Your task to perform on an android device: Open my contact list Image 0: 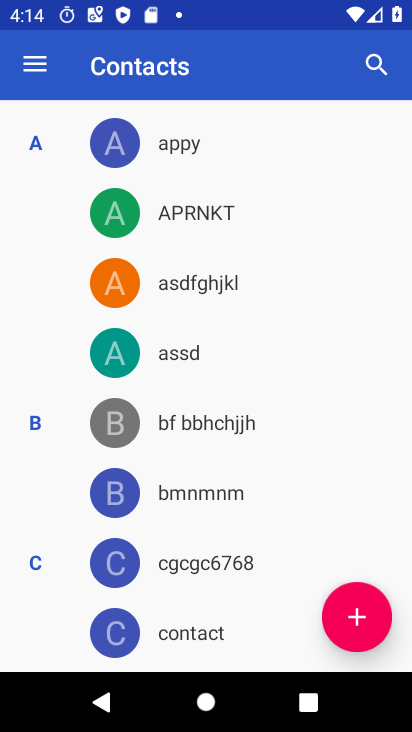
Step 0: press home button
Your task to perform on an android device: Open my contact list Image 1: 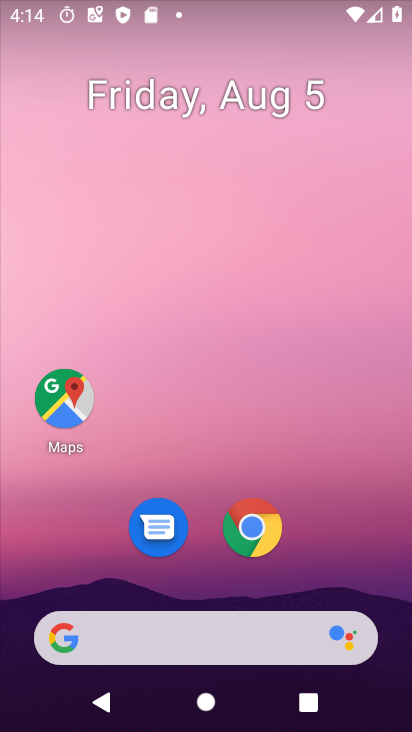
Step 1: drag from (203, 561) to (173, 132)
Your task to perform on an android device: Open my contact list Image 2: 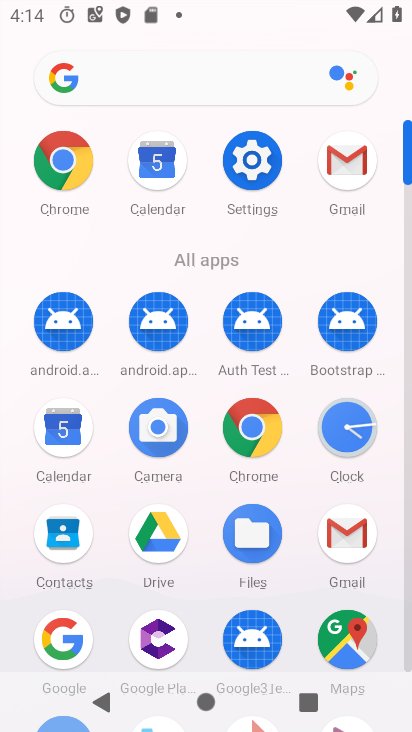
Step 2: drag from (202, 605) to (218, 124)
Your task to perform on an android device: Open my contact list Image 3: 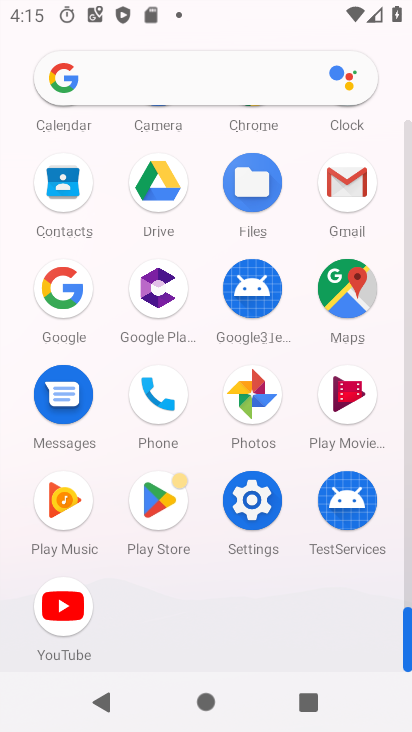
Step 3: drag from (204, 194) to (212, 534)
Your task to perform on an android device: Open my contact list Image 4: 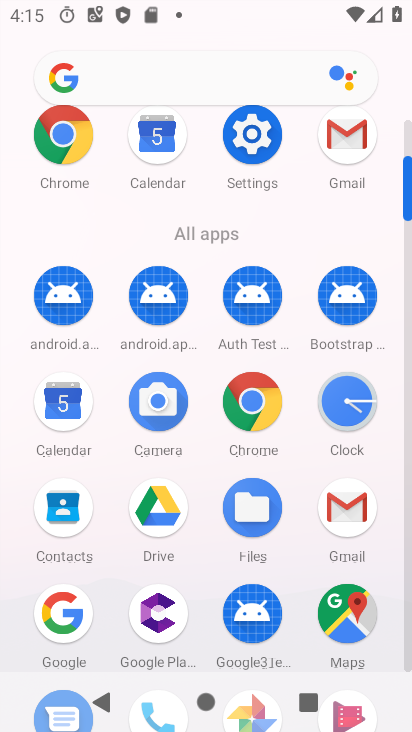
Step 4: click (59, 498)
Your task to perform on an android device: Open my contact list Image 5: 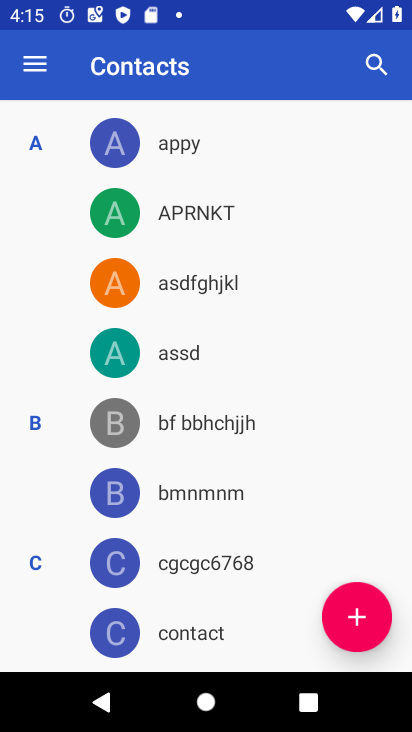
Step 5: task complete